Your task to perform on an android device: Go to Yahoo.com Image 0: 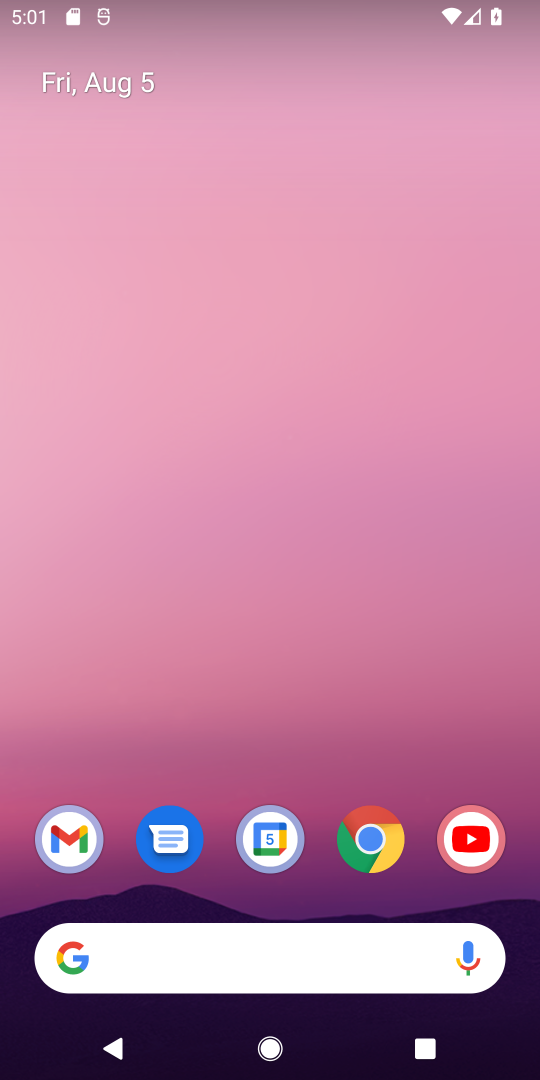
Step 0: click (381, 854)
Your task to perform on an android device: Go to Yahoo.com Image 1: 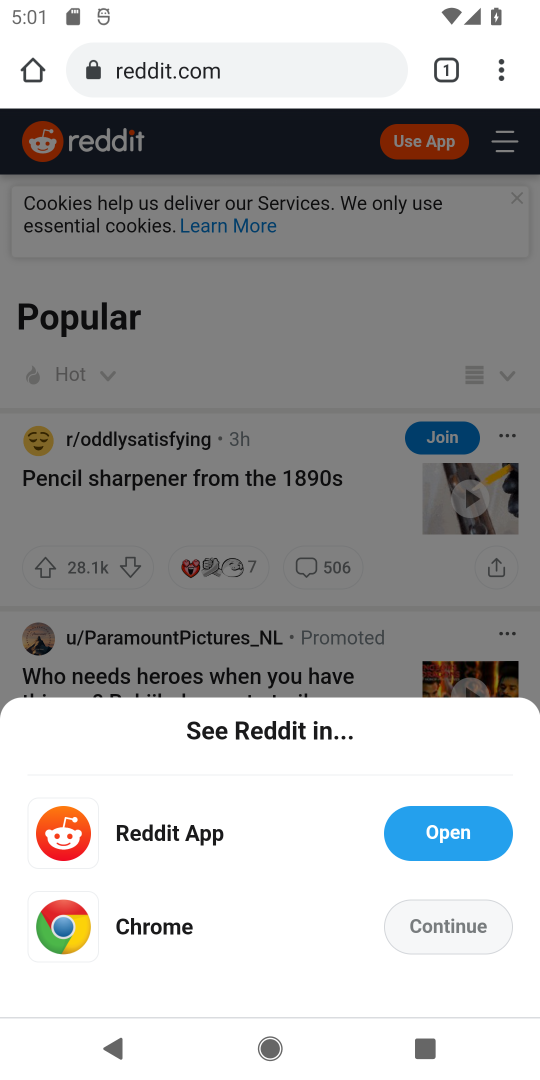
Step 1: click (450, 53)
Your task to perform on an android device: Go to Yahoo.com Image 2: 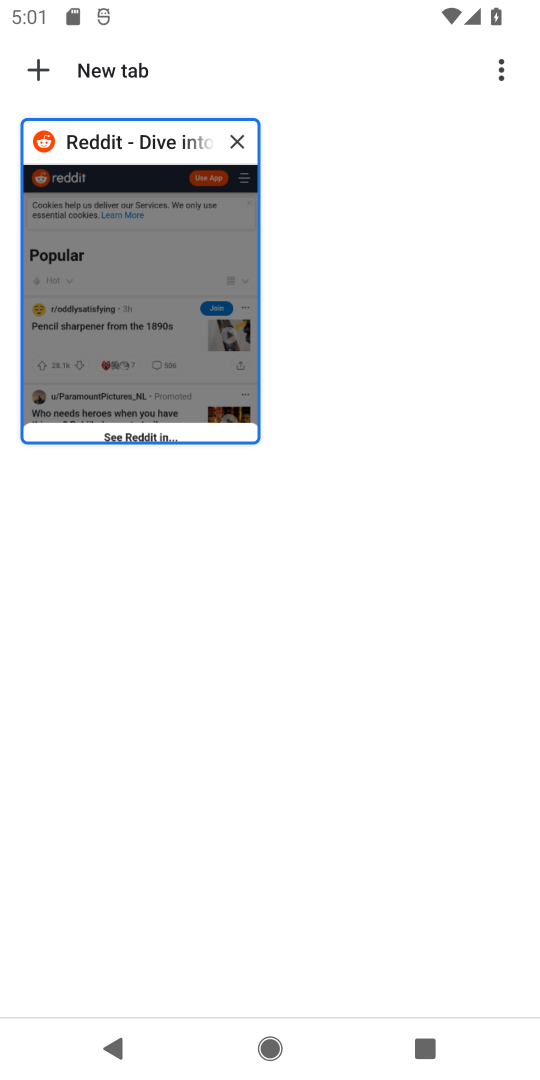
Step 2: click (26, 65)
Your task to perform on an android device: Go to Yahoo.com Image 3: 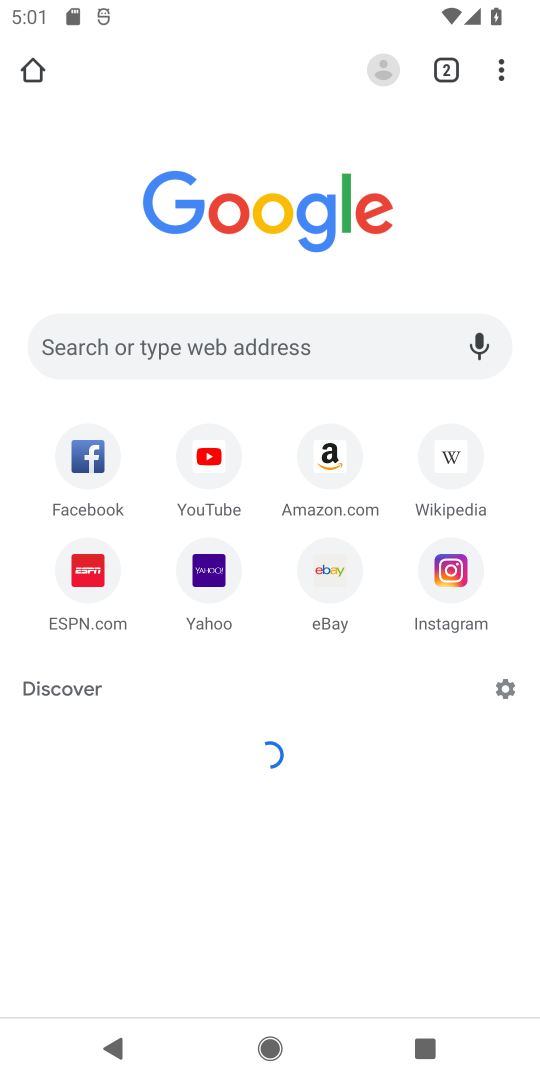
Step 3: click (191, 565)
Your task to perform on an android device: Go to Yahoo.com Image 4: 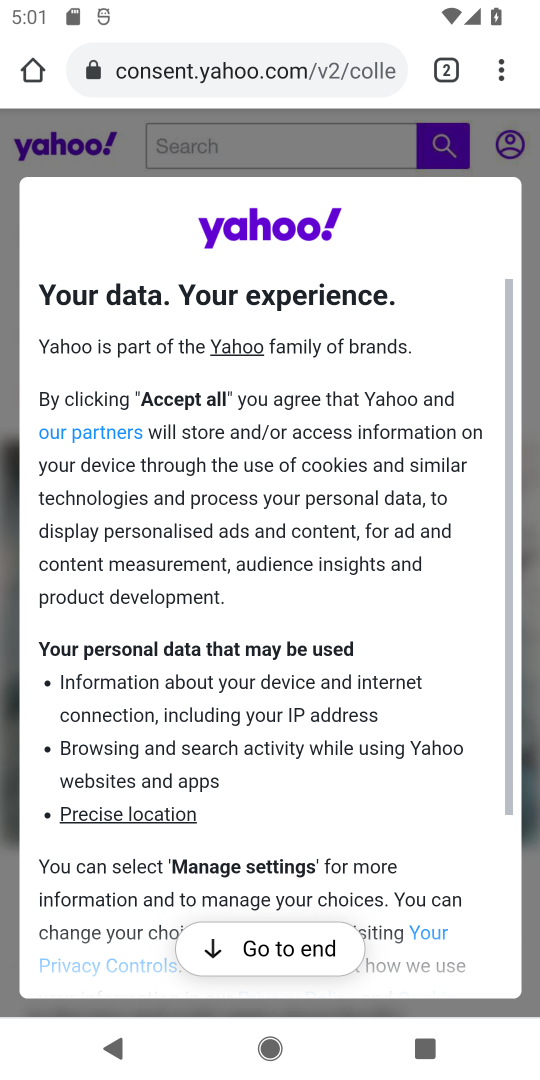
Step 4: task complete